Your task to perform on an android device: Clear the shopping cart on target.com. Search for macbook pro on target.com, select the first entry, add it to the cart, then select checkout. Image 0: 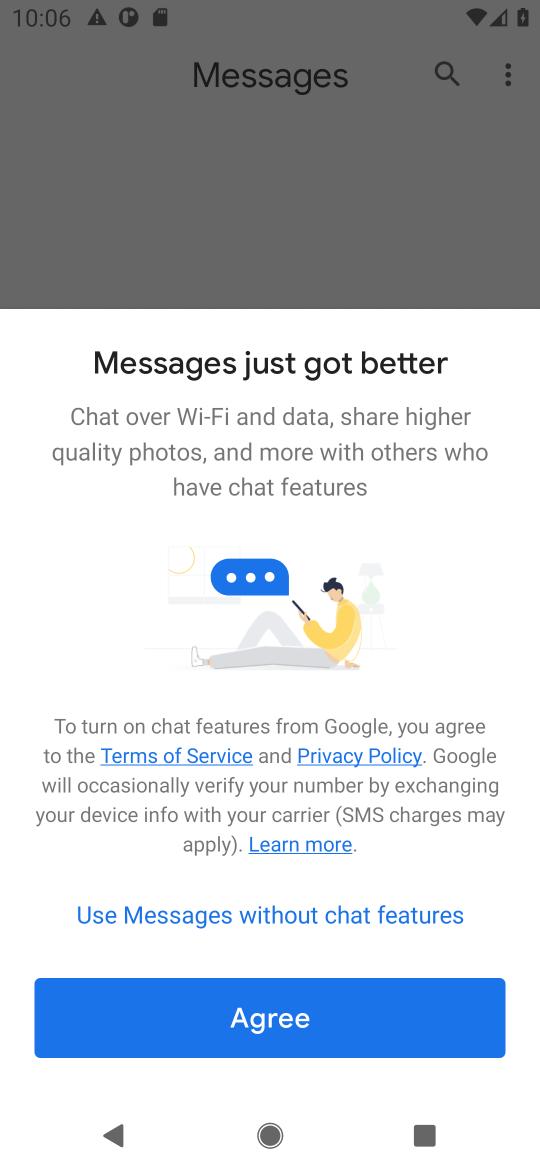
Step 0: press home button
Your task to perform on an android device: Clear the shopping cart on target.com. Search for macbook pro on target.com, select the first entry, add it to the cart, then select checkout. Image 1: 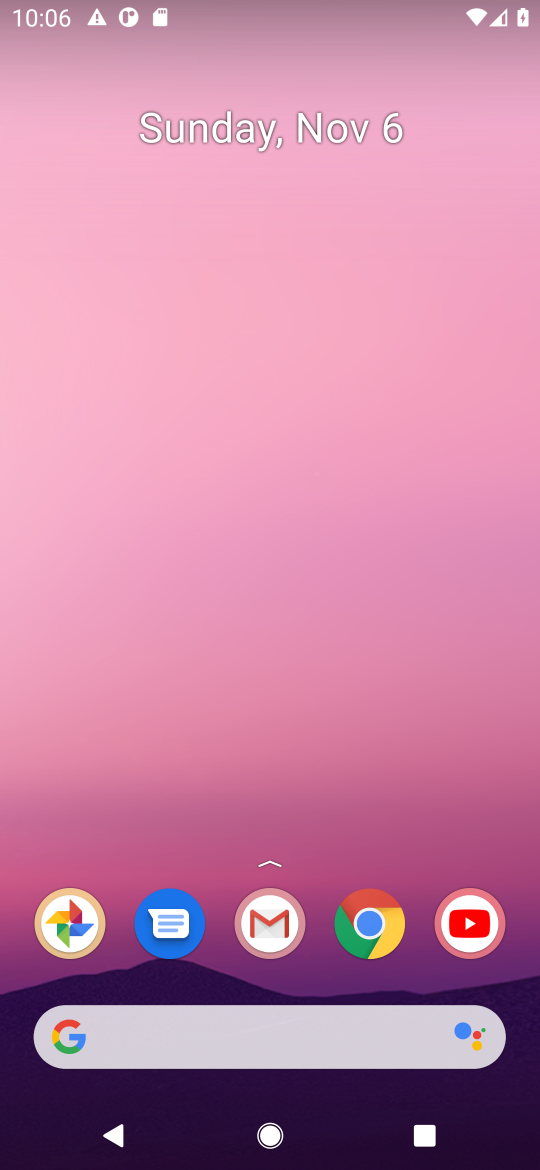
Step 1: click (373, 929)
Your task to perform on an android device: Clear the shopping cart on target.com. Search for macbook pro on target.com, select the first entry, add it to the cart, then select checkout. Image 2: 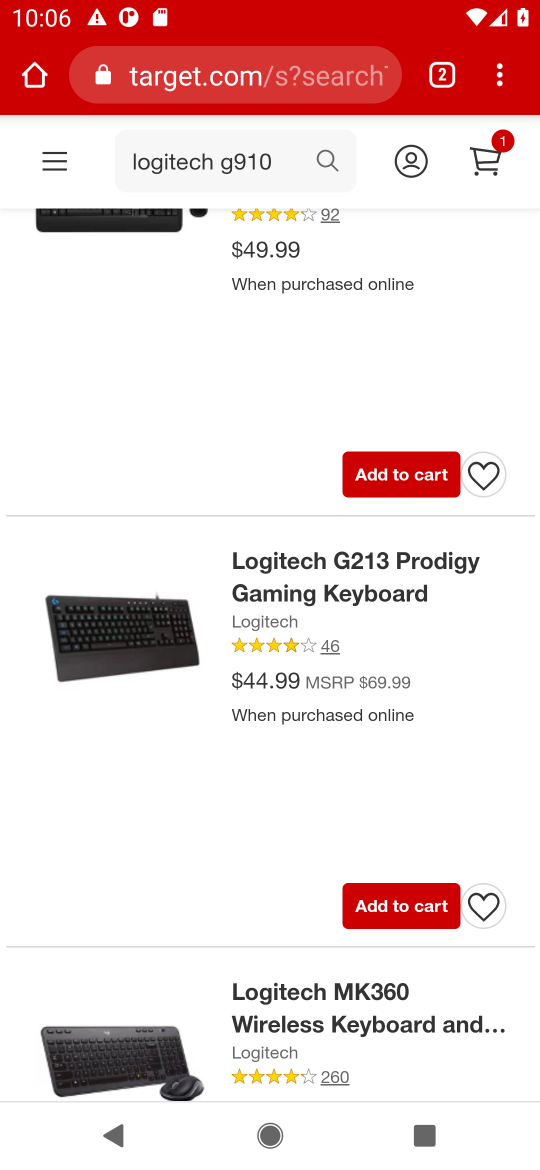
Step 2: click (491, 155)
Your task to perform on an android device: Clear the shopping cart on target.com. Search for macbook pro on target.com, select the first entry, add it to the cart, then select checkout. Image 3: 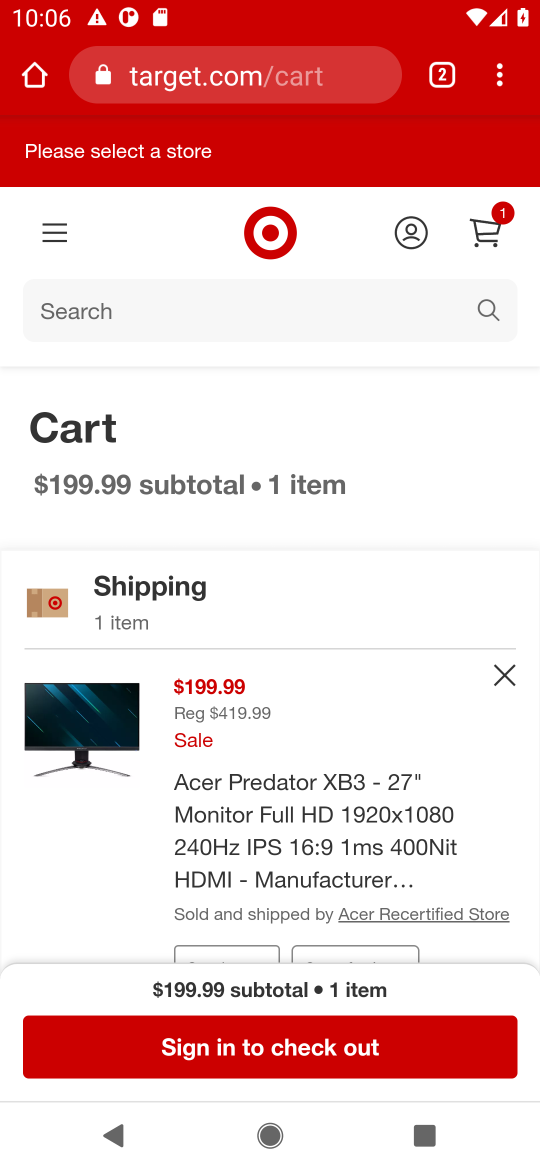
Step 3: click (509, 669)
Your task to perform on an android device: Clear the shopping cart on target.com. Search for macbook pro on target.com, select the first entry, add it to the cart, then select checkout. Image 4: 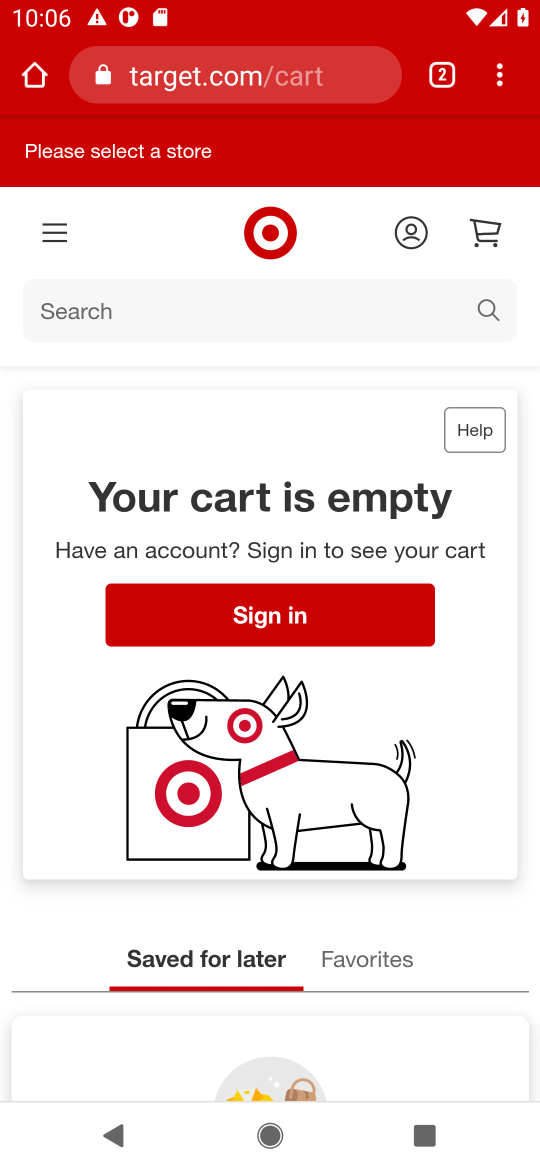
Step 4: click (480, 314)
Your task to perform on an android device: Clear the shopping cart on target.com. Search for macbook pro on target.com, select the first entry, add it to the cart, then select checkout. Image 5: 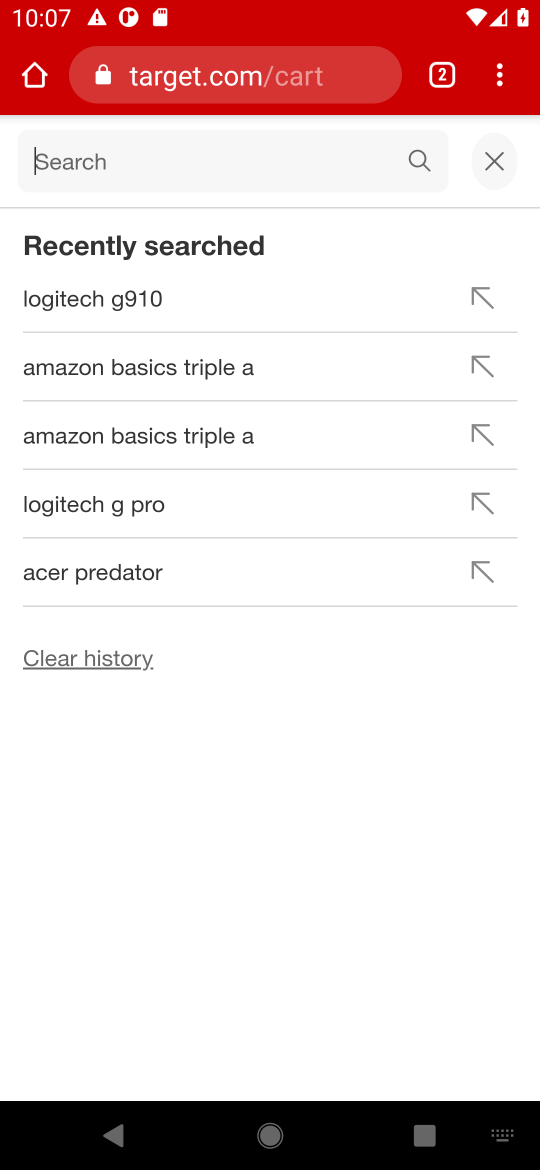
Step 5: type "macbook pro"
Your task to perform on an android device: Clear the shopping cart on target.com. Search for macbook pro on target.com, select the first entry, add it to the cart, then select checkout. Image 6: 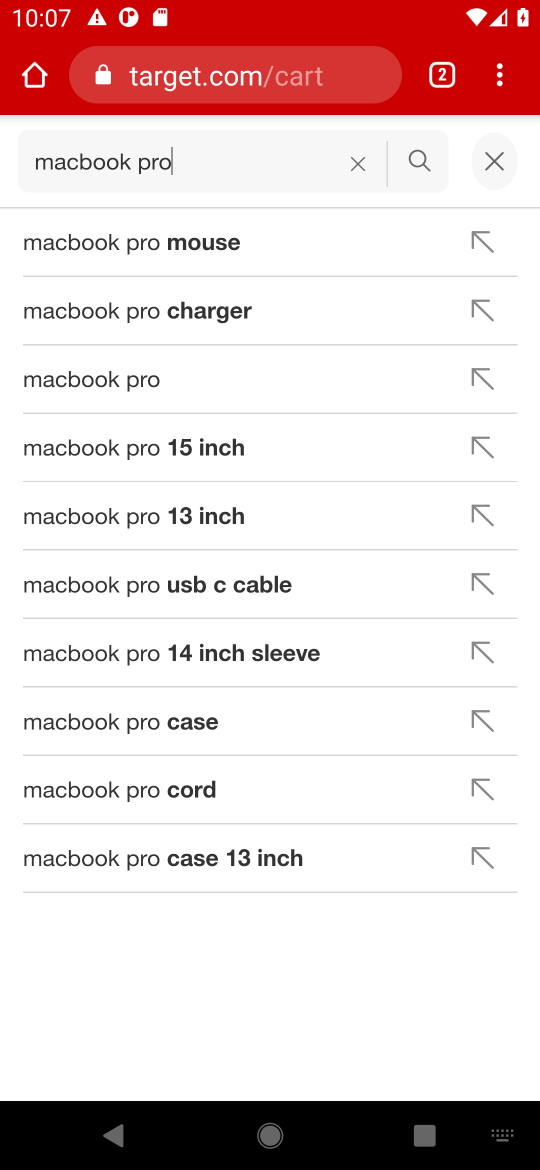
Step 6: click (151, 387)
Your task to perform on an android device: Clear the shopping cart on target.com. Search for macbook pro on target.com, select the first entry, add it to the cart, then select checkout. Image 7: 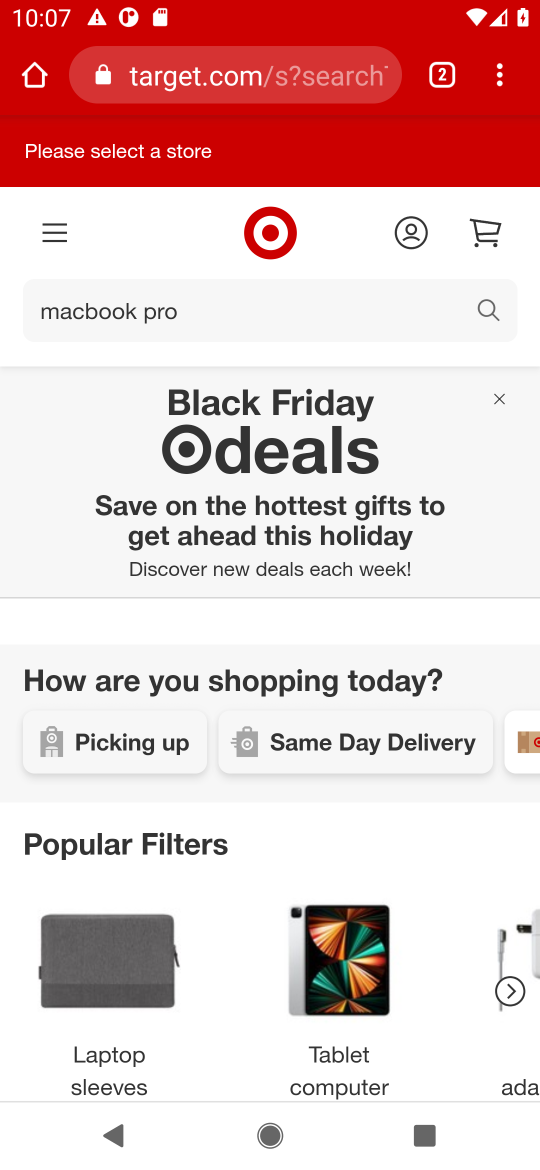
Step 7: task complete